Your task to perform on an android device: Search for the best rated mechanical keyboard on Amazon. Image 0: 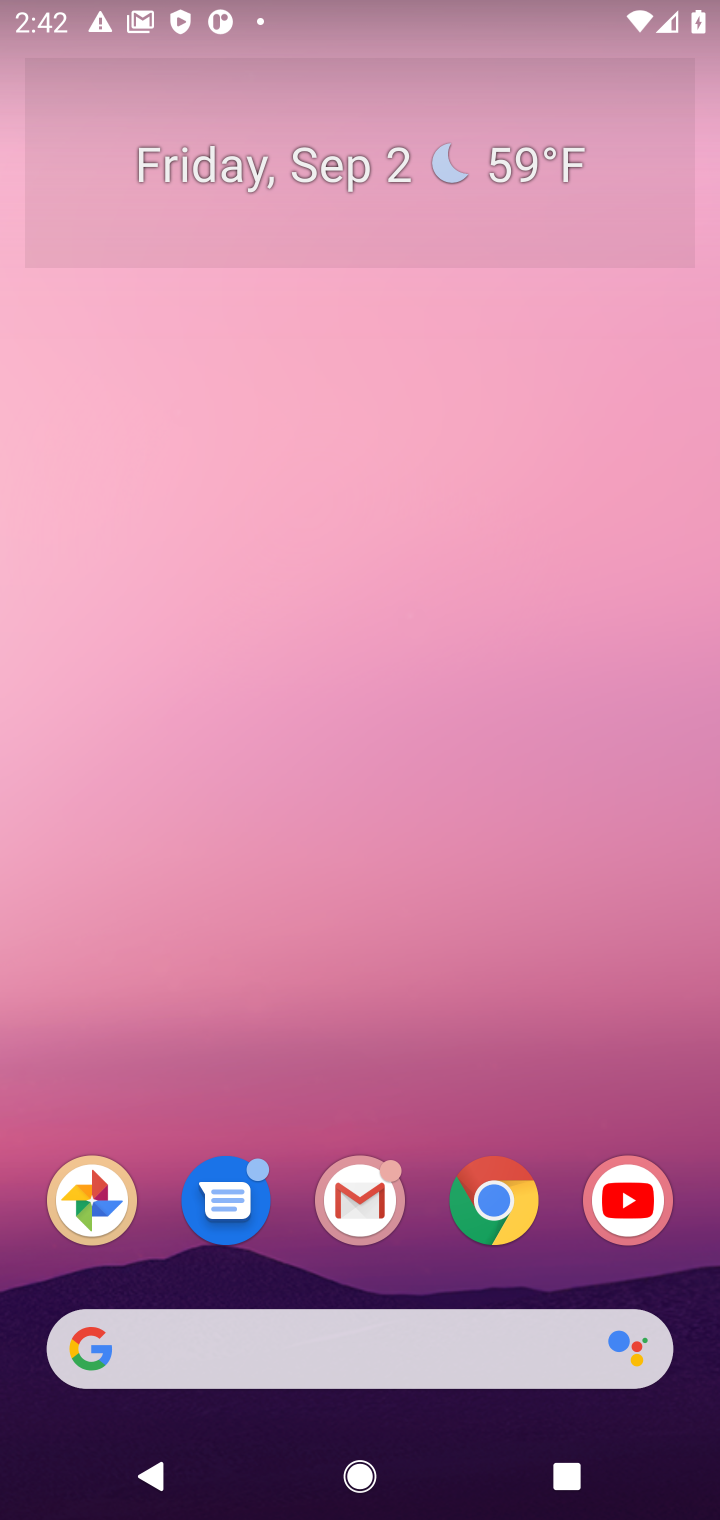
Step 0: click (488, 1201)
Your task to perform on an android device: Search for the best rated mechanical keyboard on Amazon. Image 1: 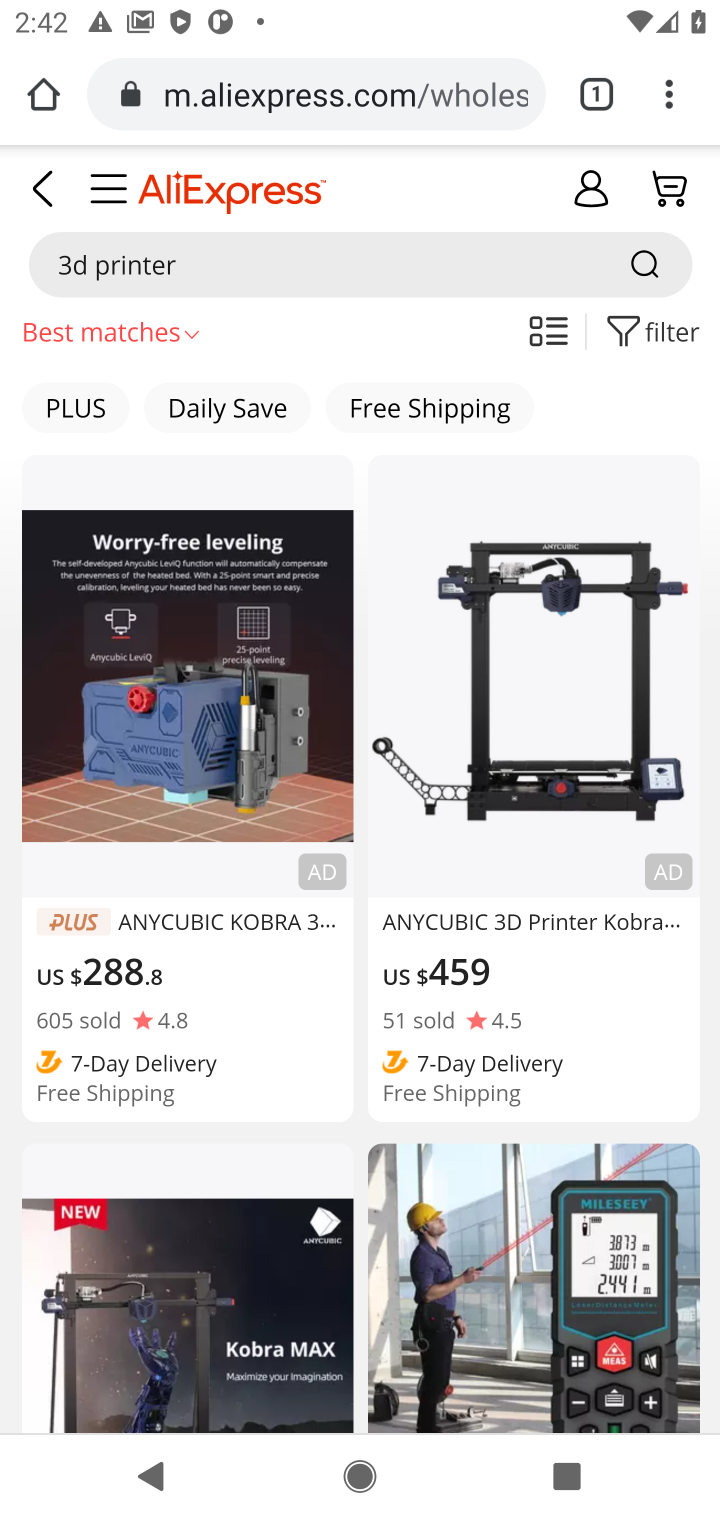
Step 1: click (410, 87)
Your task to perform on an android device: Search for the best rated mechanical keyboard on Amazon. Image 2: 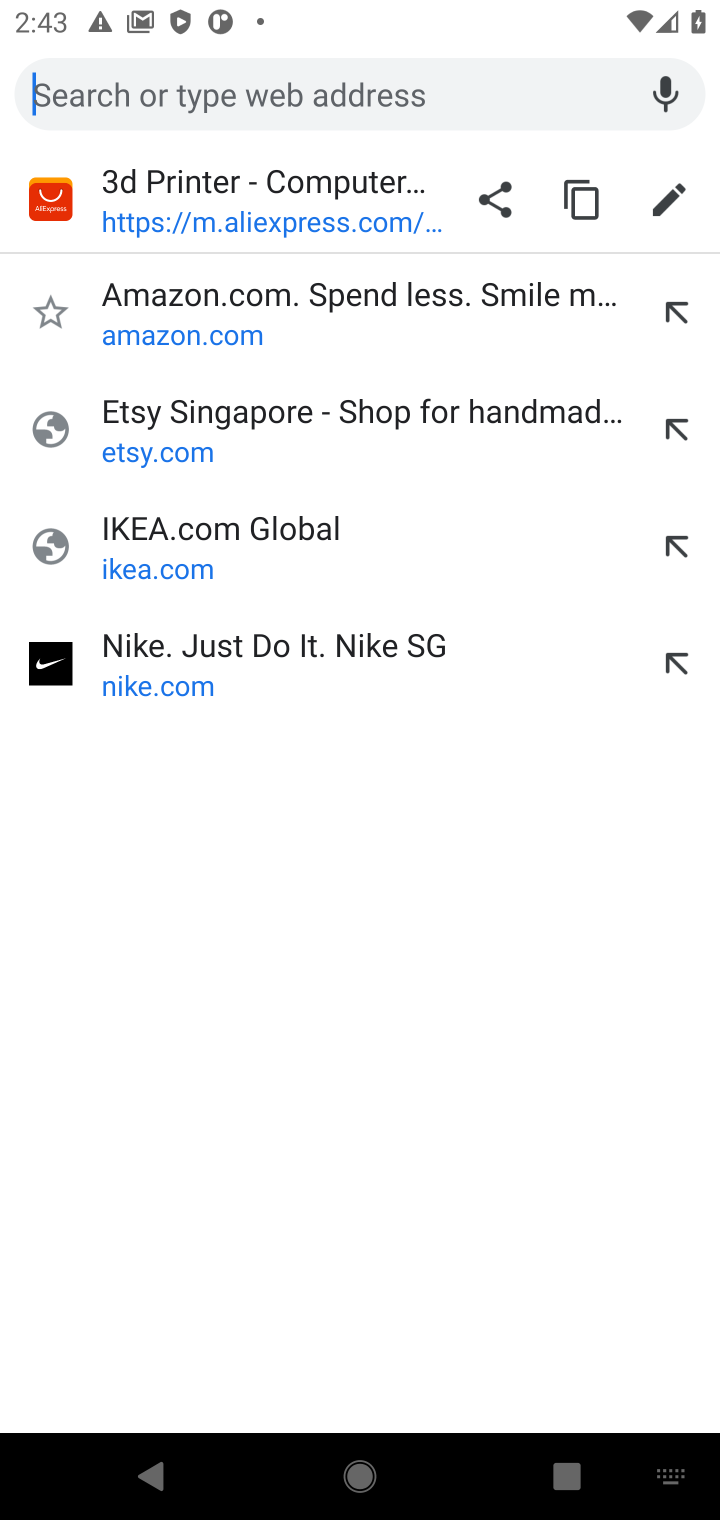
Step 2: press enter
Your task to perform on an android device: Search for the best rated mechanical keyboard on Amazon. Image 3: 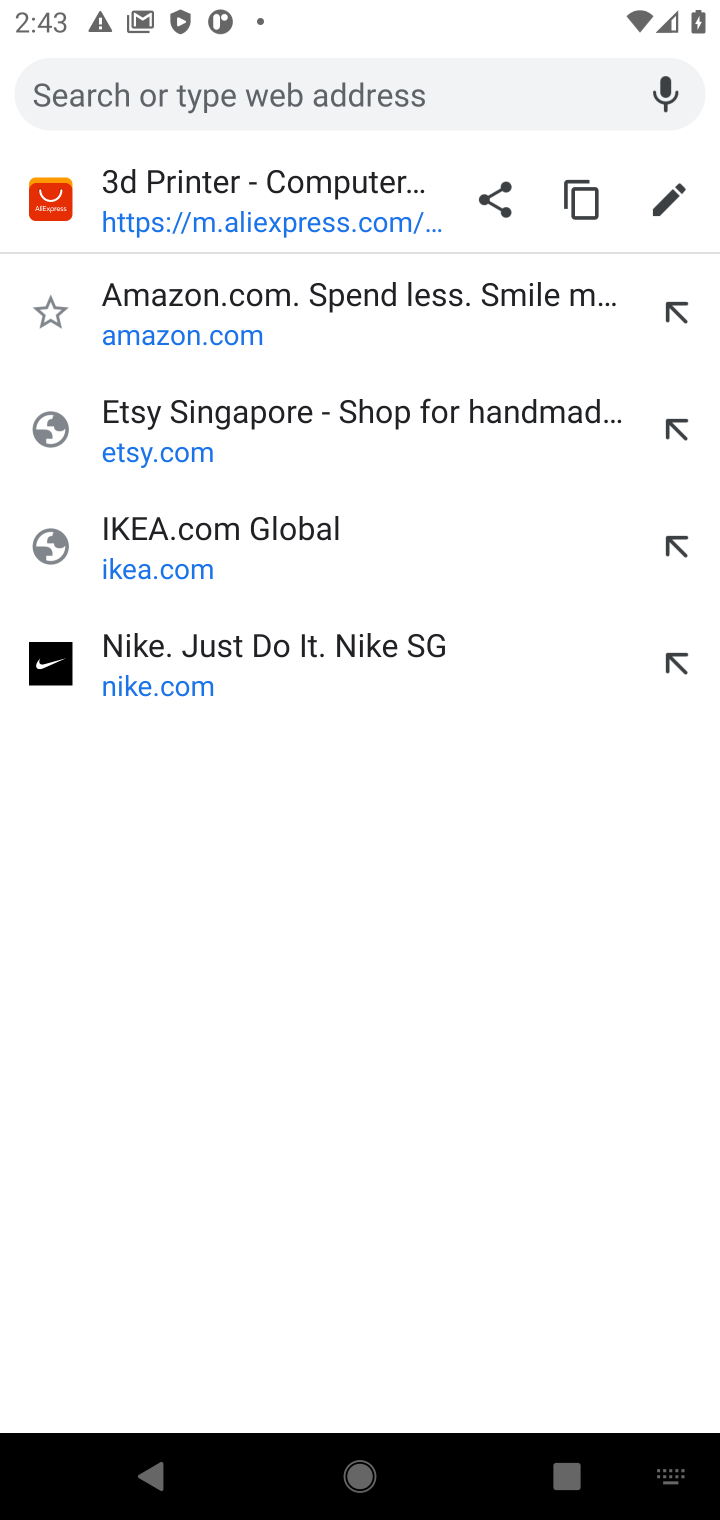
Step 3: type "Amazon"
Your task to perform on an android device: Search for the best rated mechanical keyboard on Amazon. Image 4: 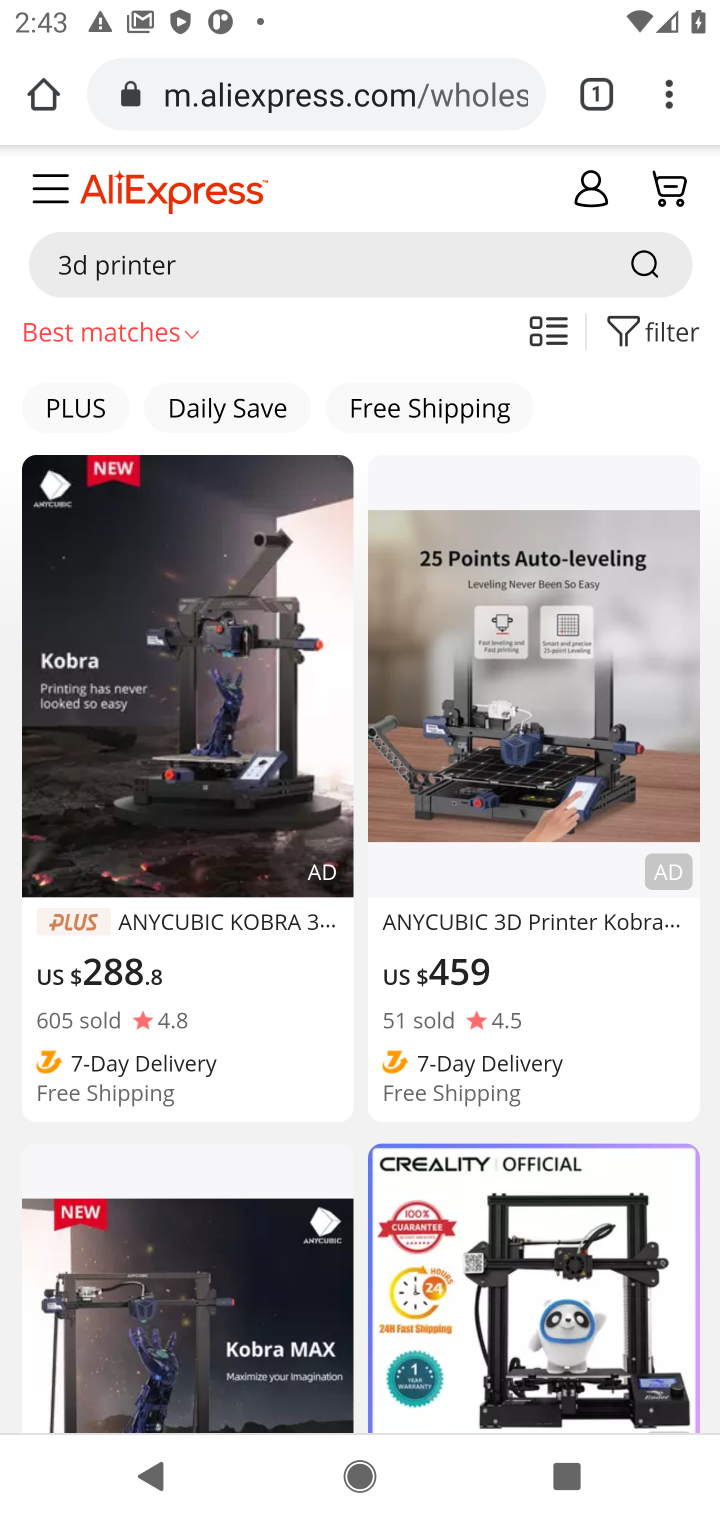
Step 4: click (431, 91)
Your task to perform on an android device: Search for the best rated mechanical keyboard on Amazon. Image 5: 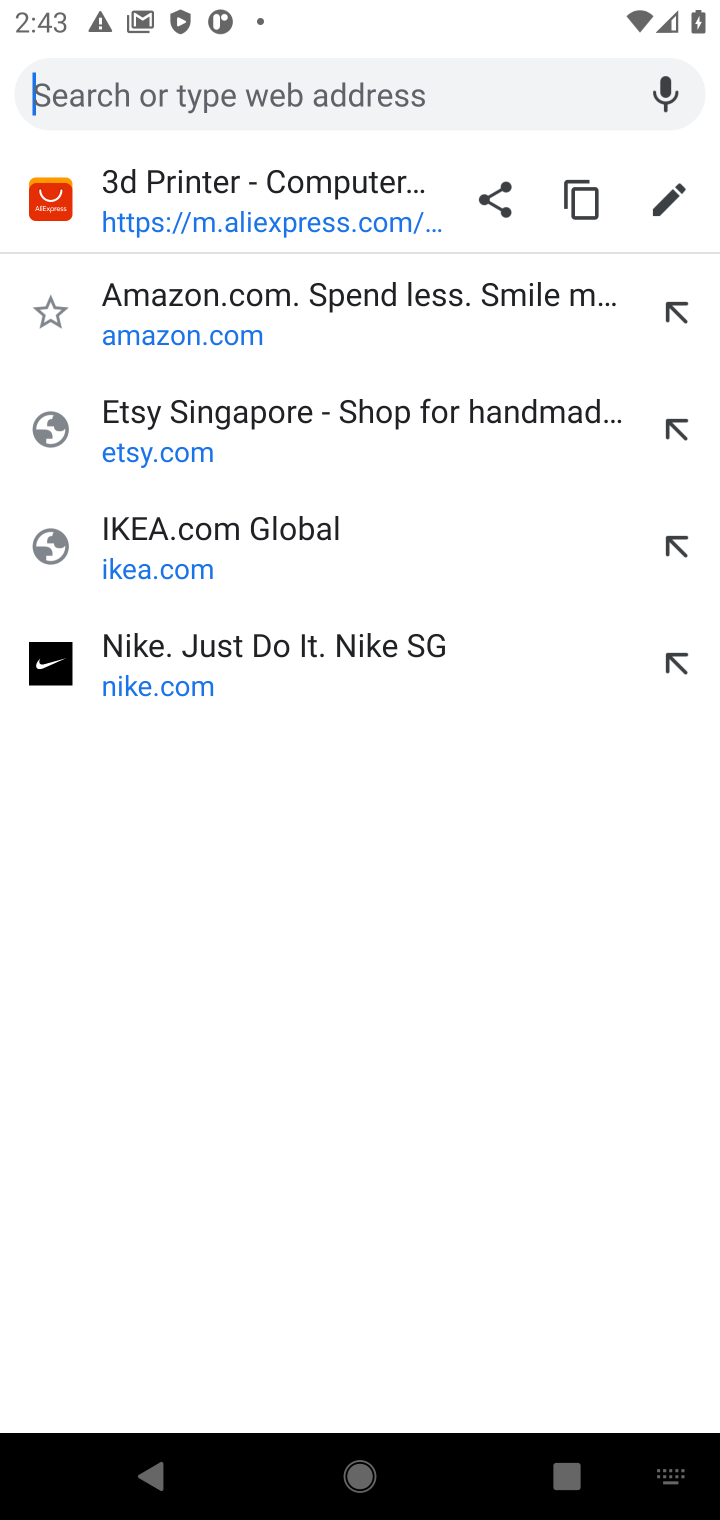
Step 5: type "Amazon"
Your task to perform on an android device: Search for the best rated mechanical keyboard on Amazon. Image 6: 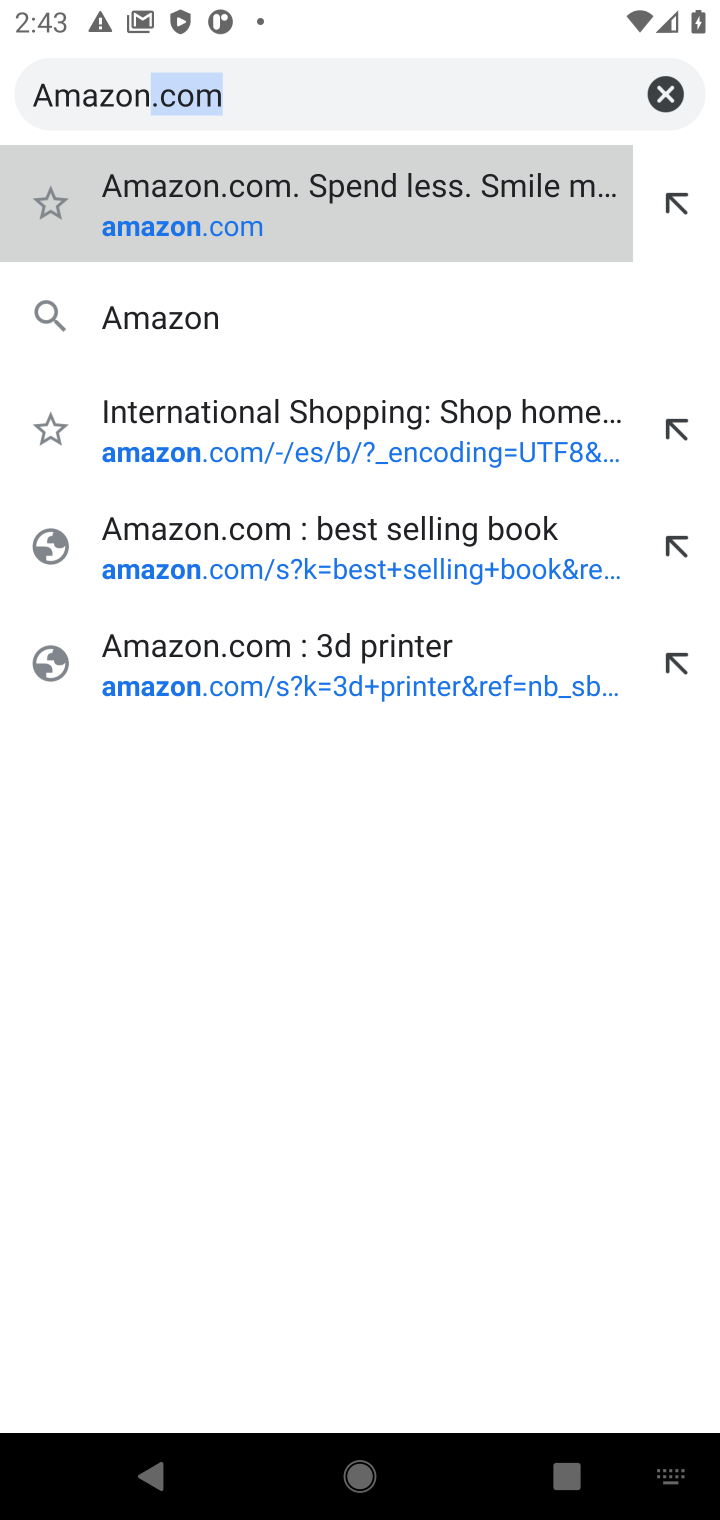
Step 6: press enter
Your task to perform on an android device: Search for the best rated mechanical keyboard on Amazon. Image 7: 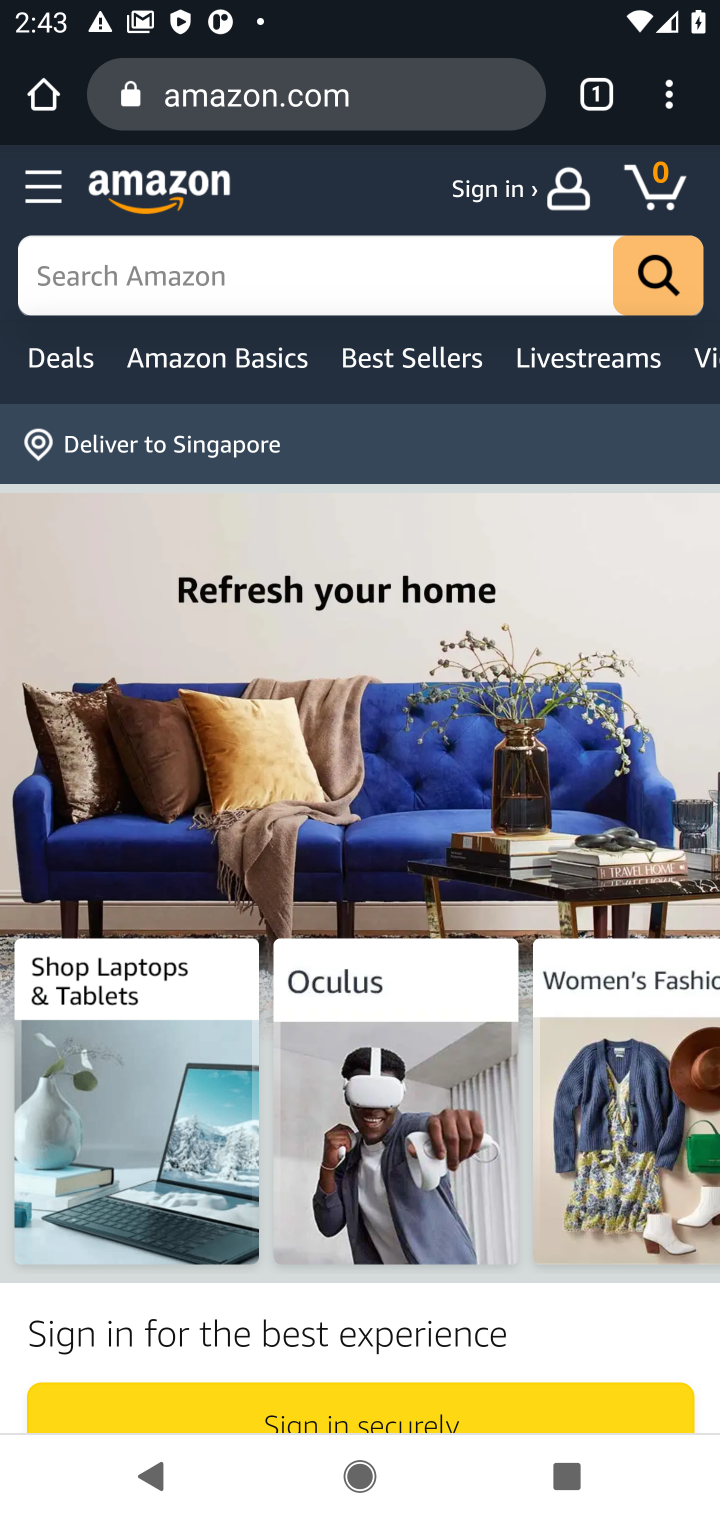
Step 7: click (295, 268)
Your task to perform on an android device: Search for the best rated mechanical keyboard on Amazon. Image 8: 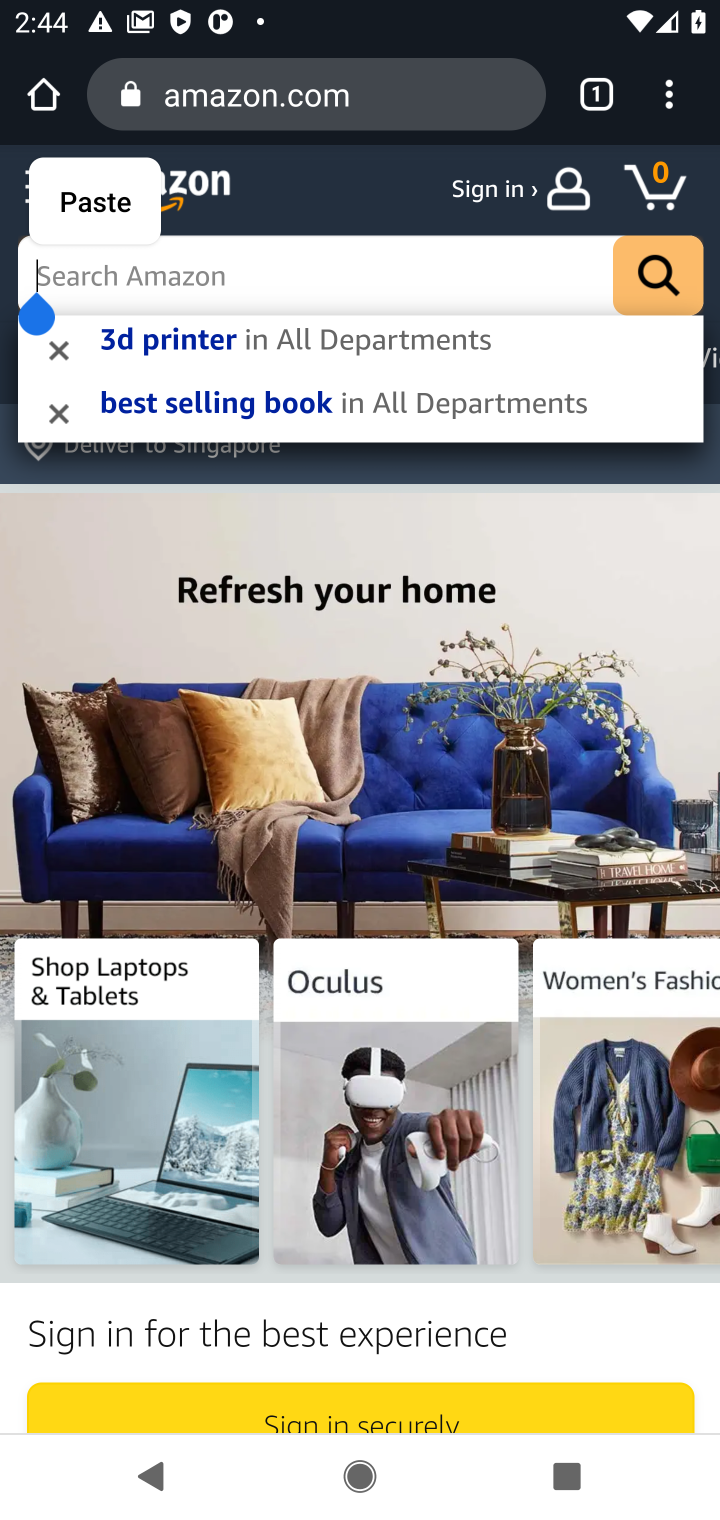
Step 8: type "mechanical keyboard"
Your task to perform on an android device: Search for the best rated mechanical keyboard on Amazon. Image 9: 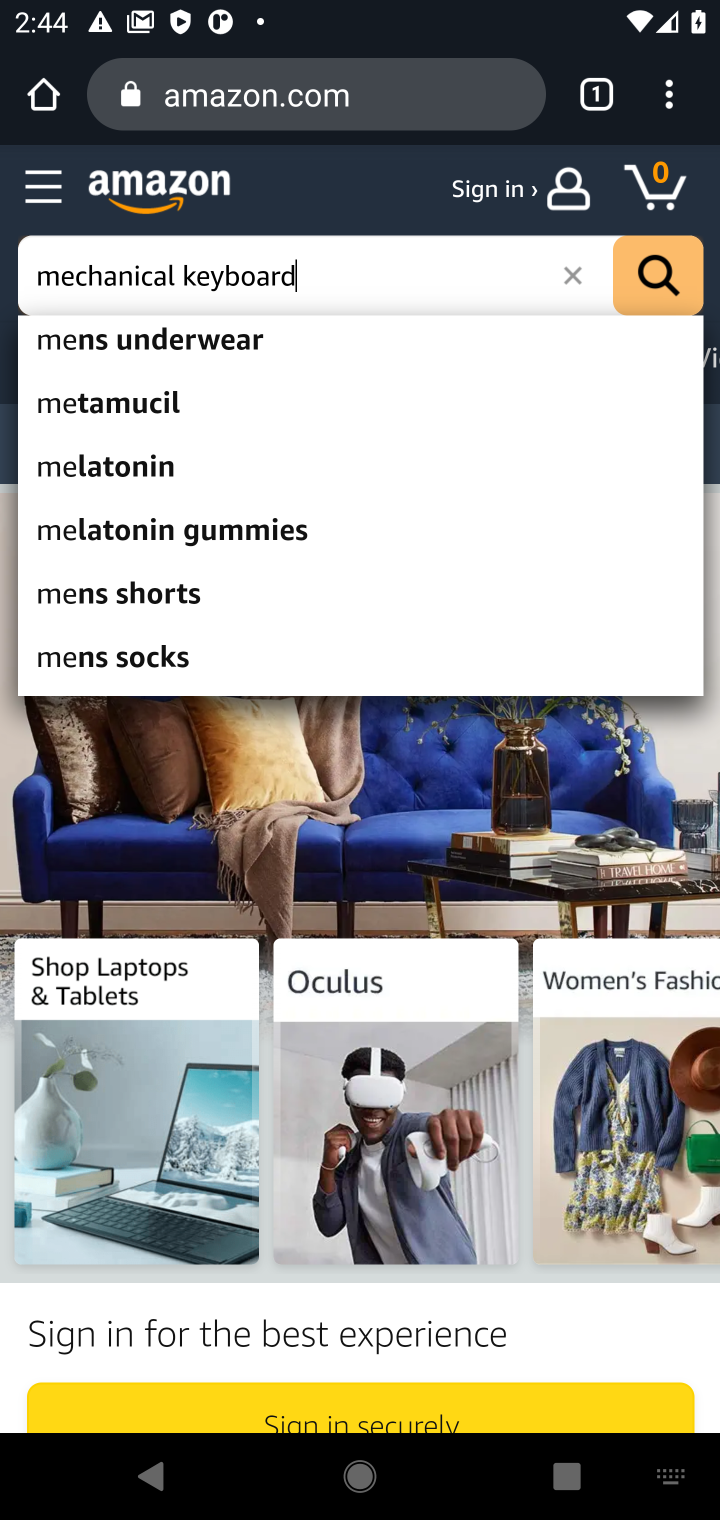
Step 9: press enter
Your task to perform on an android device: Search for the best rated mechanical keyboard on Amazon. Image 10: 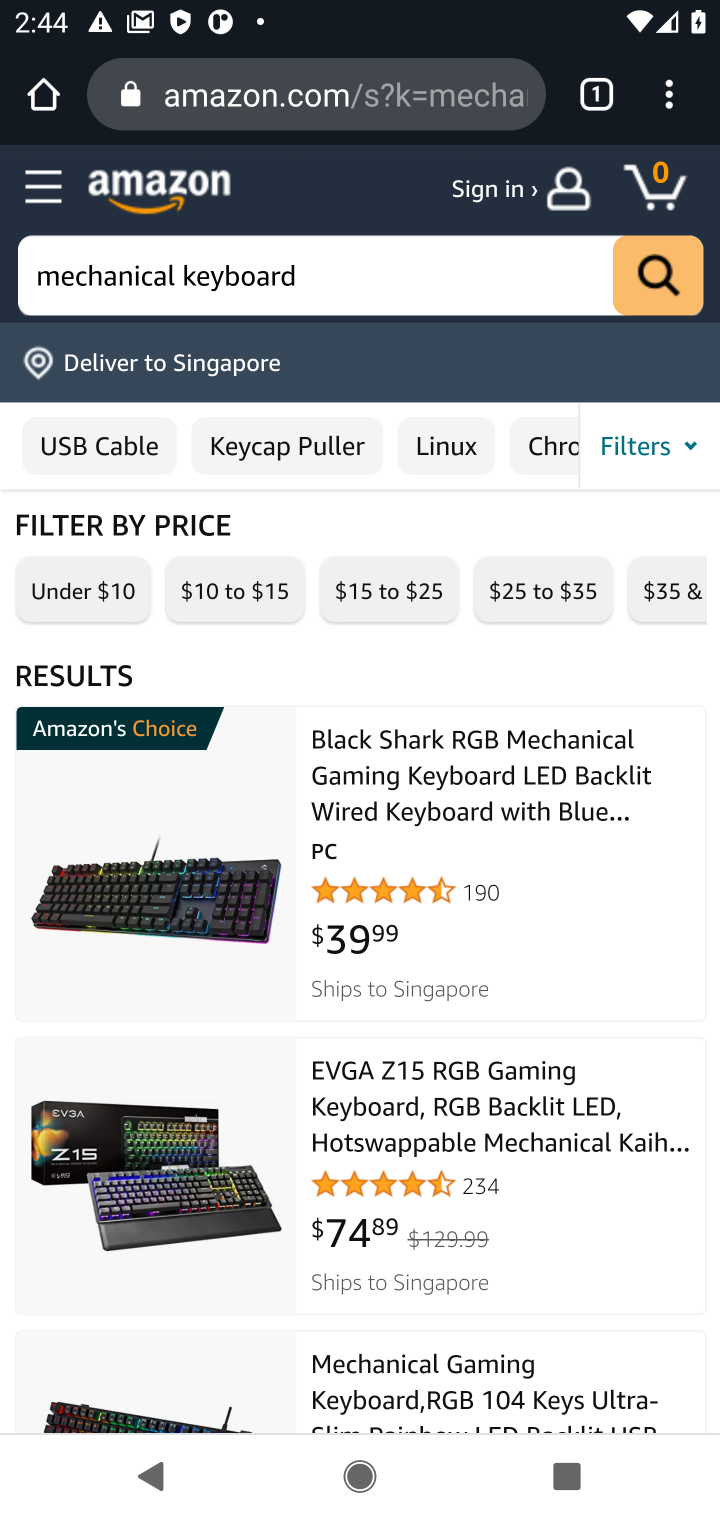
Step 10: click (656, 260)
Your task to perform on an android device: Search for the best rated mechanical keyboard on Amazon. Image 11: 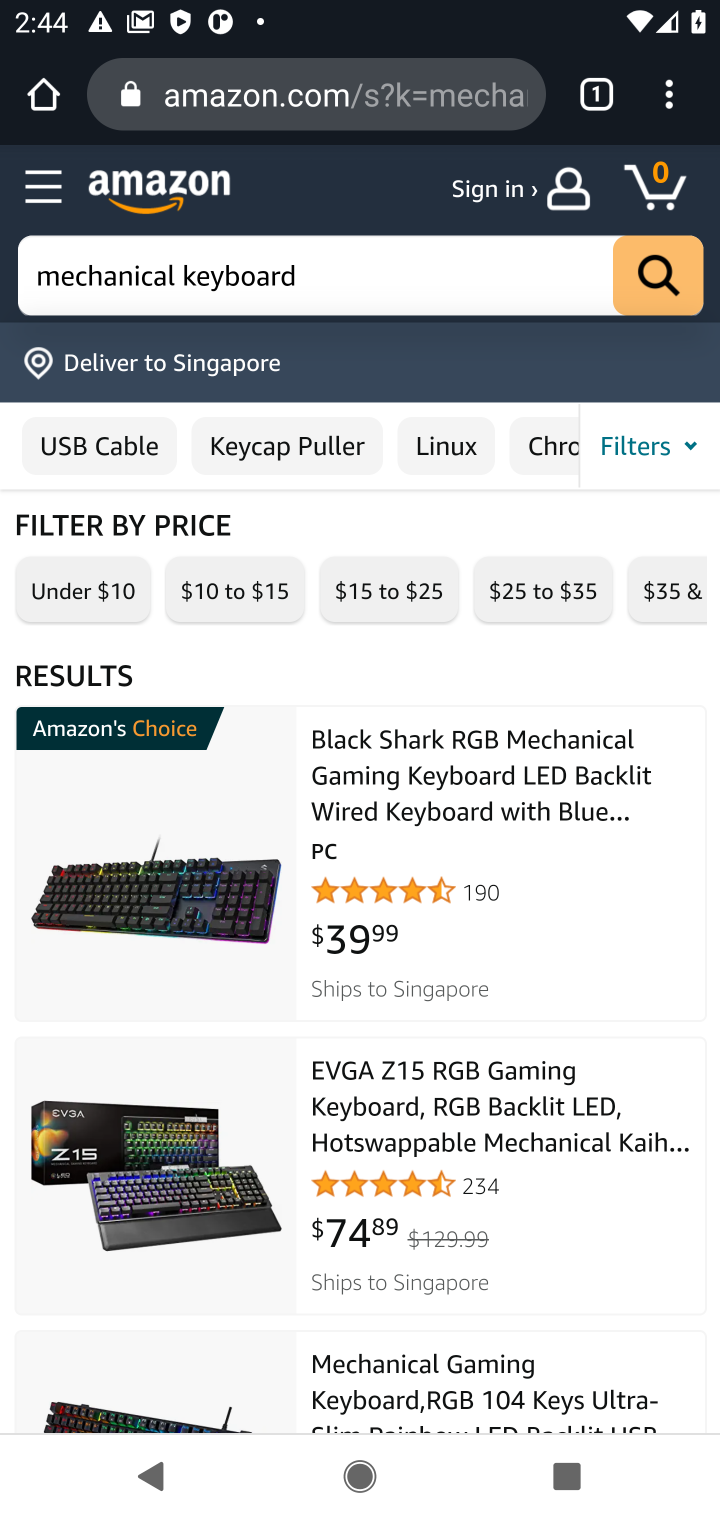
Step 11: drag from (472, 1273) to (563, 456)
Your task to perform on an android device: Search for the best rated mechanical keyboard on Amazon. Image 12: 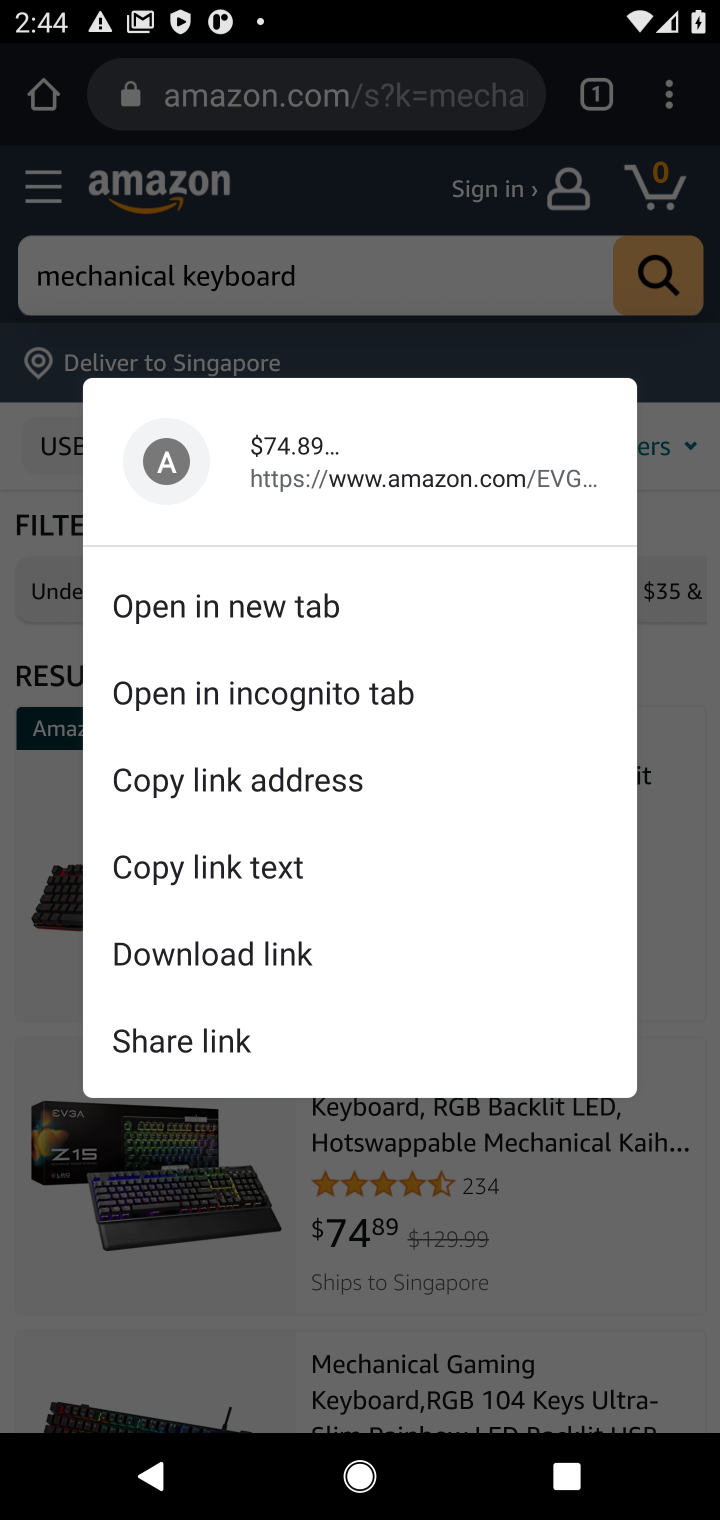
Step 12: click (708, 651)
Your task to perform on an android device: Search for the best rated mechanical keyboard on Amazon. Image 13: 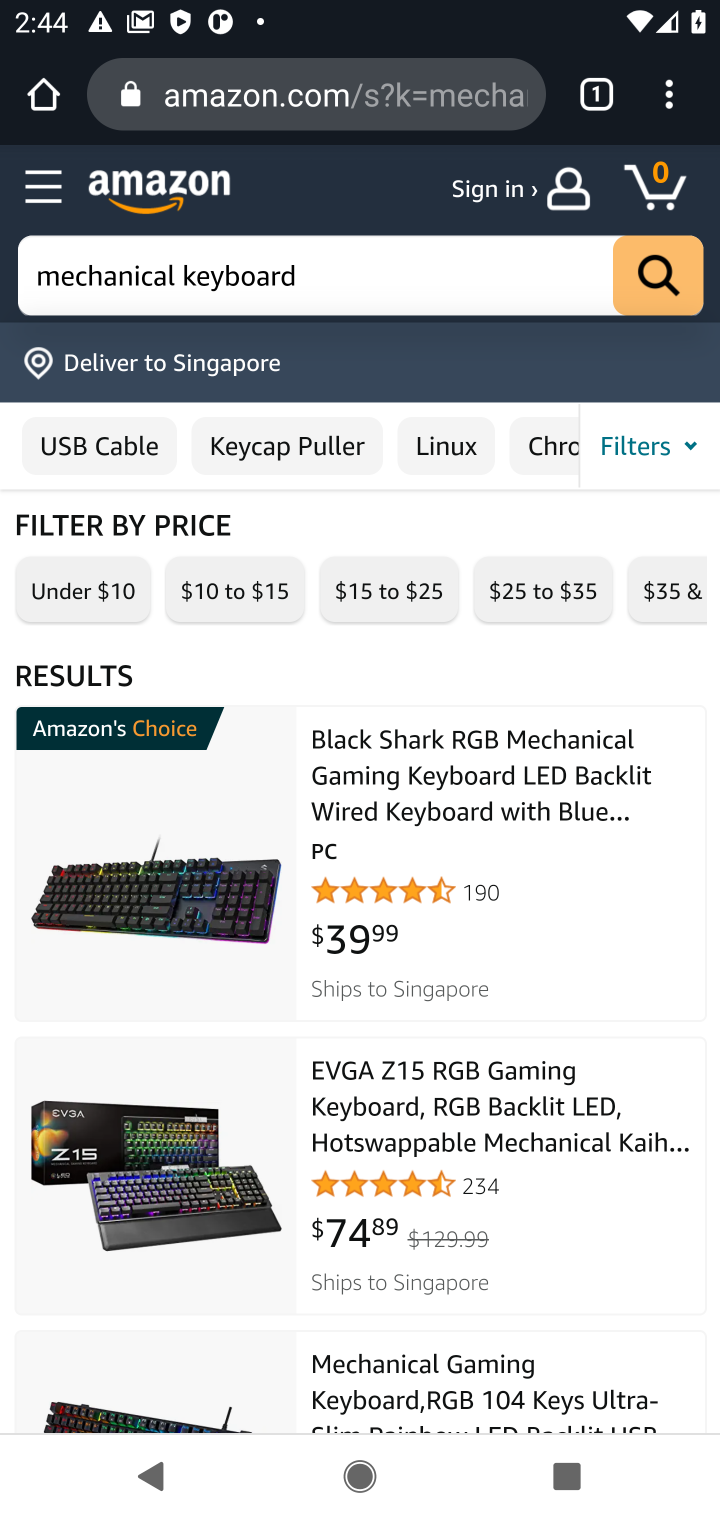
Step 13: task complete